Your task to perform on an android device: install app "Google Drive" Image 0: 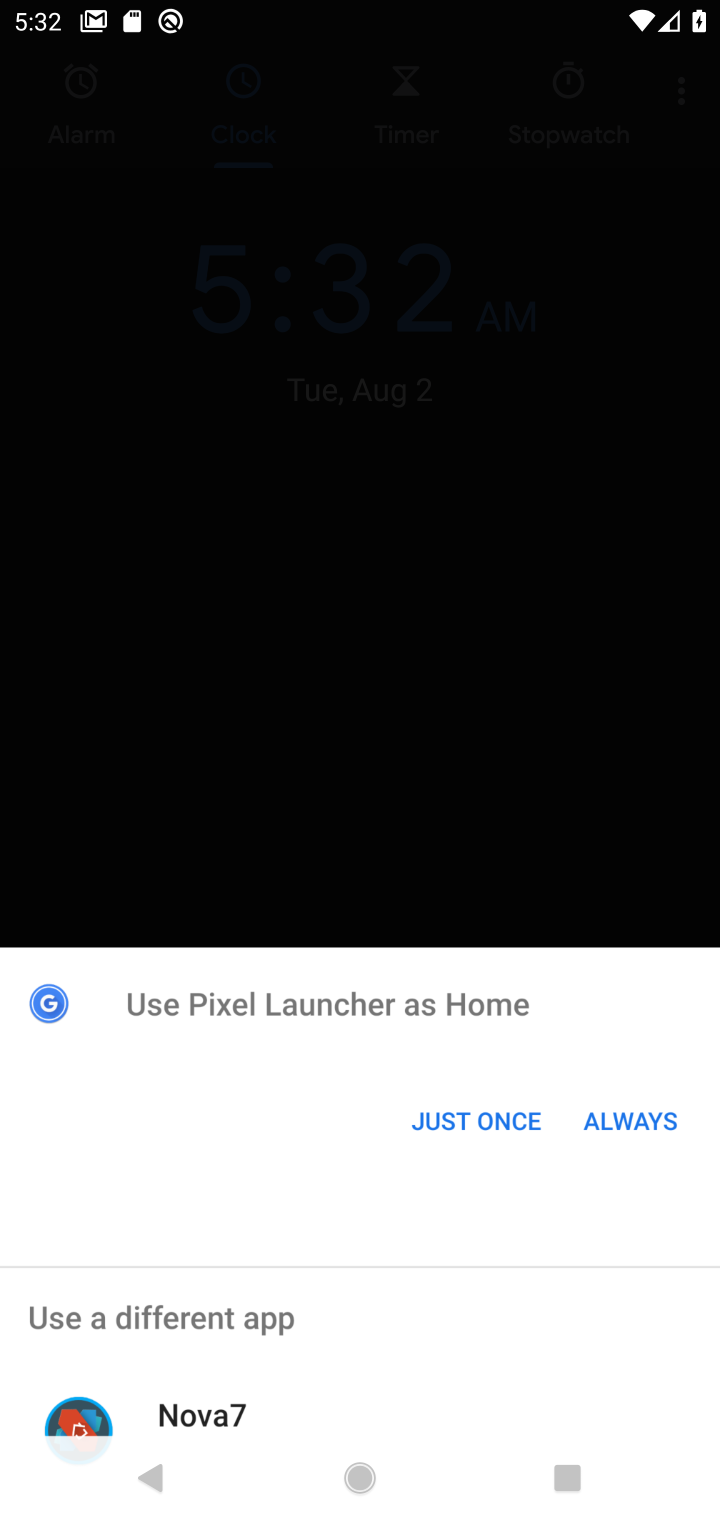
Step 0: click (528, 364)
Your task to perform on an android device: install app "Google Drive" Image 1: 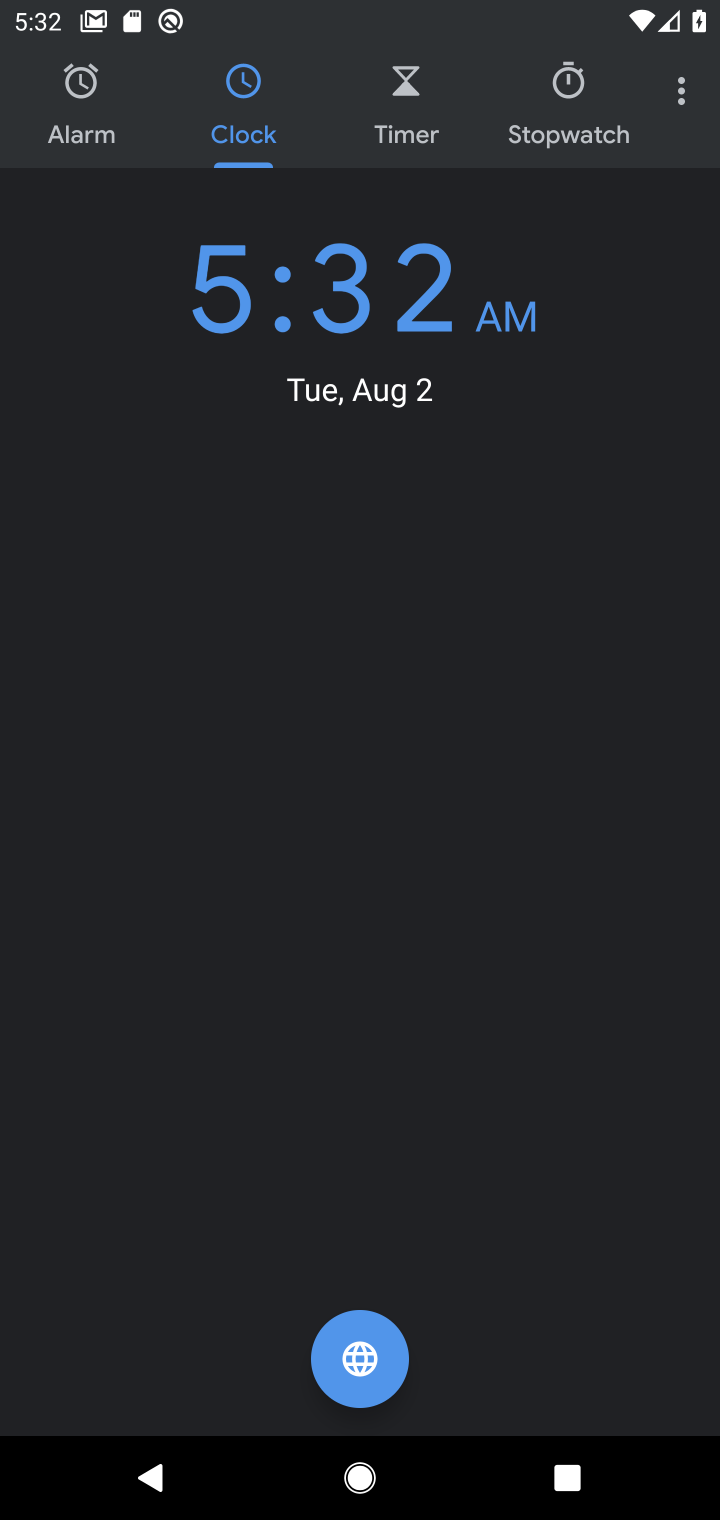
Step 1: drag from (439, 882) to (491, 484)
Your task to perform on an android device: install app "Google Drive" Image 2: 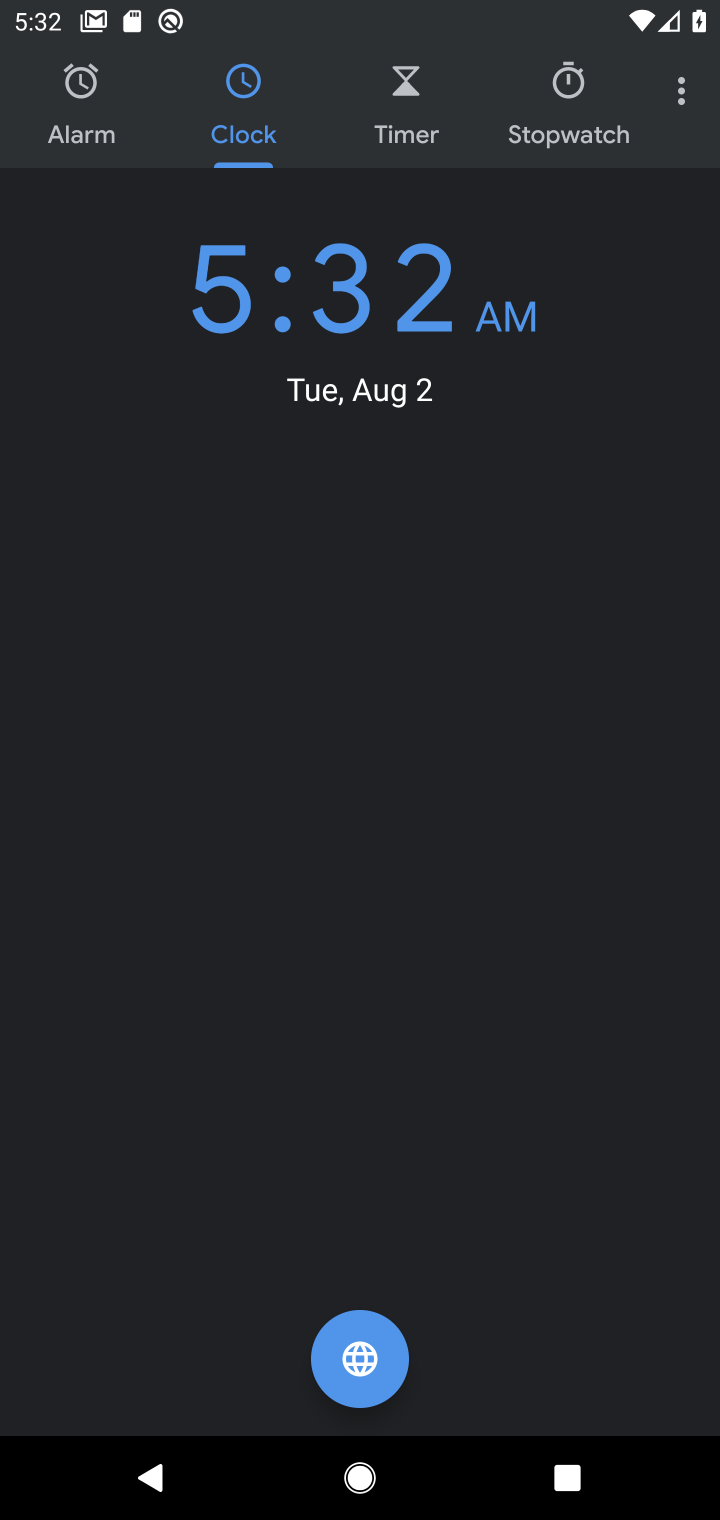
Step 2: press home button
Your task to perform on an android device: install app "Google Drive" Image 3: 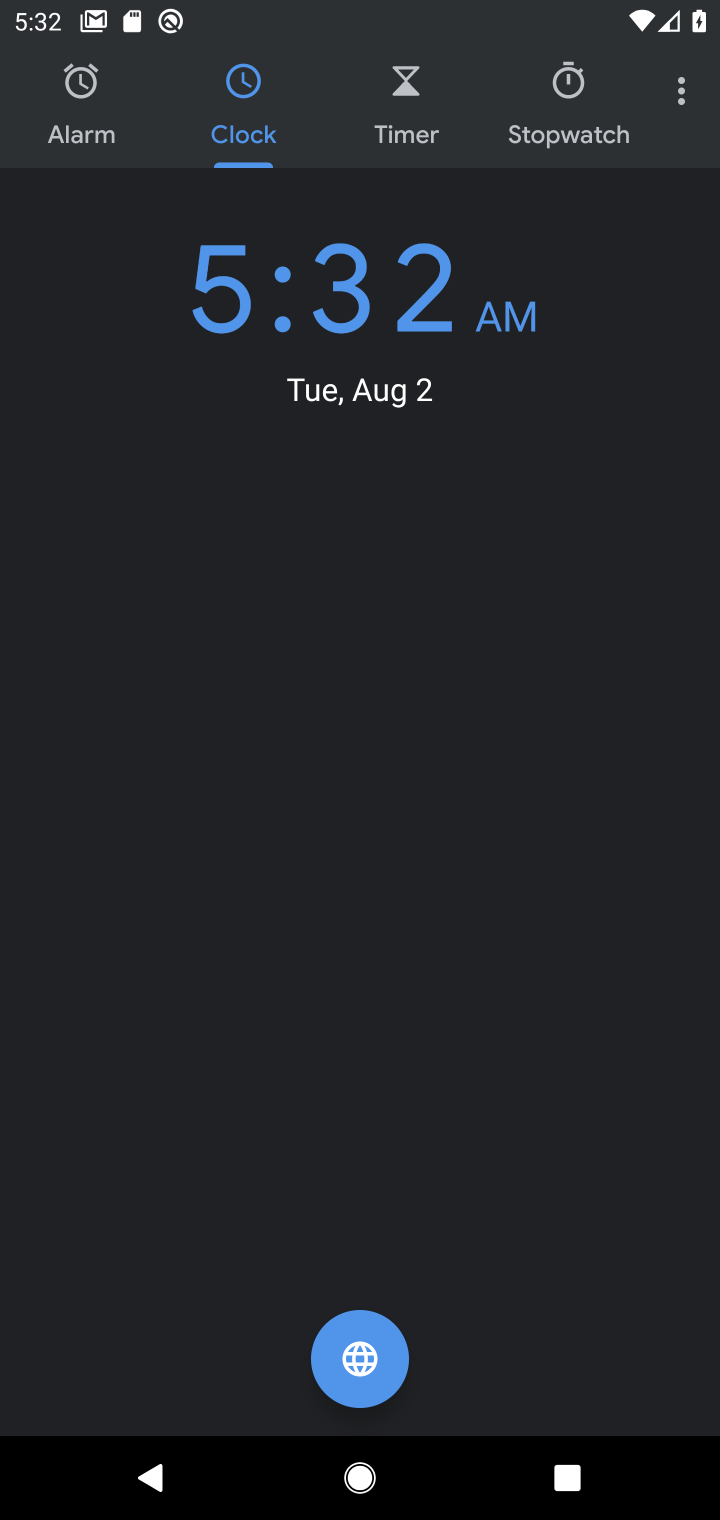
Step 3: press home button
Your task to perform on an android device: install app "Google Drive" Image 4: 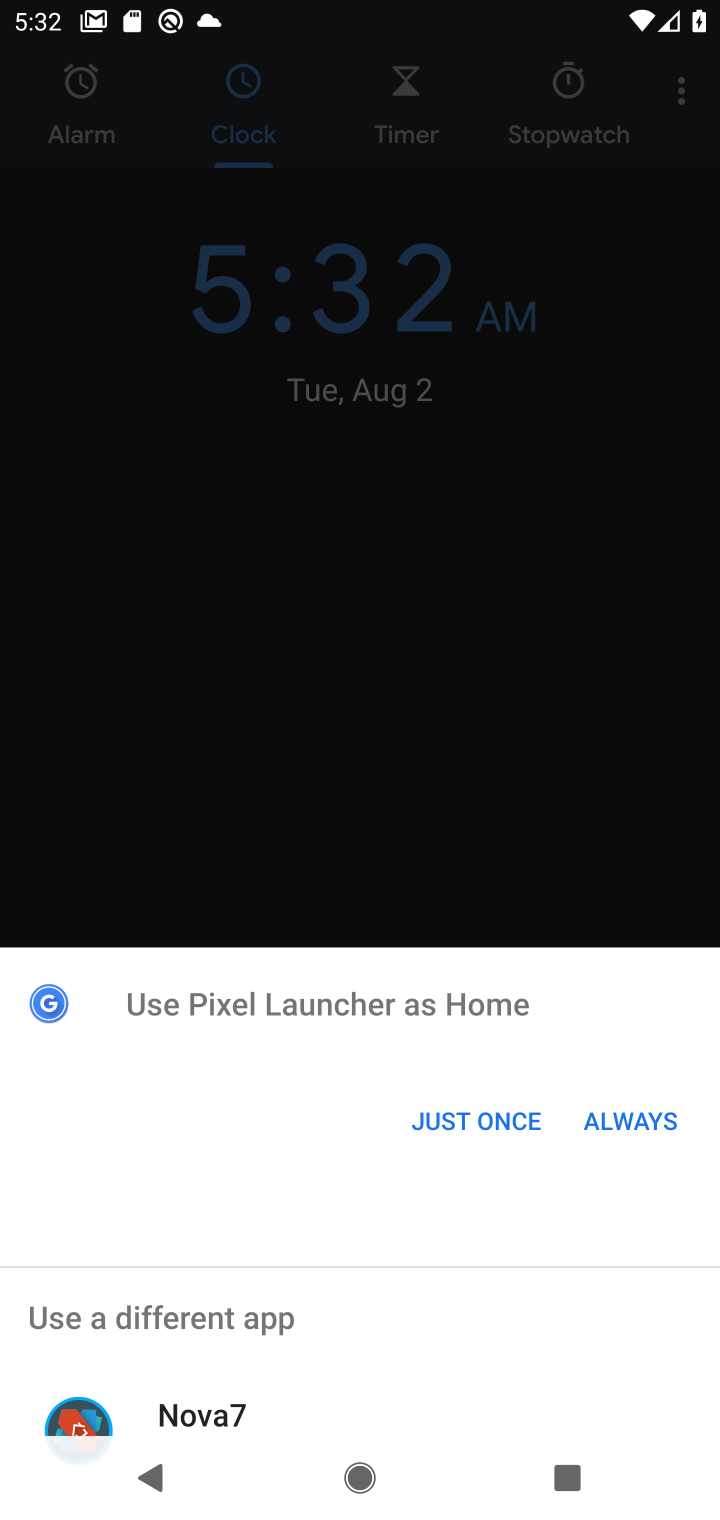
Step 4: press home button
Your task to perform on an android device: install app "Google Drive" Image 5: 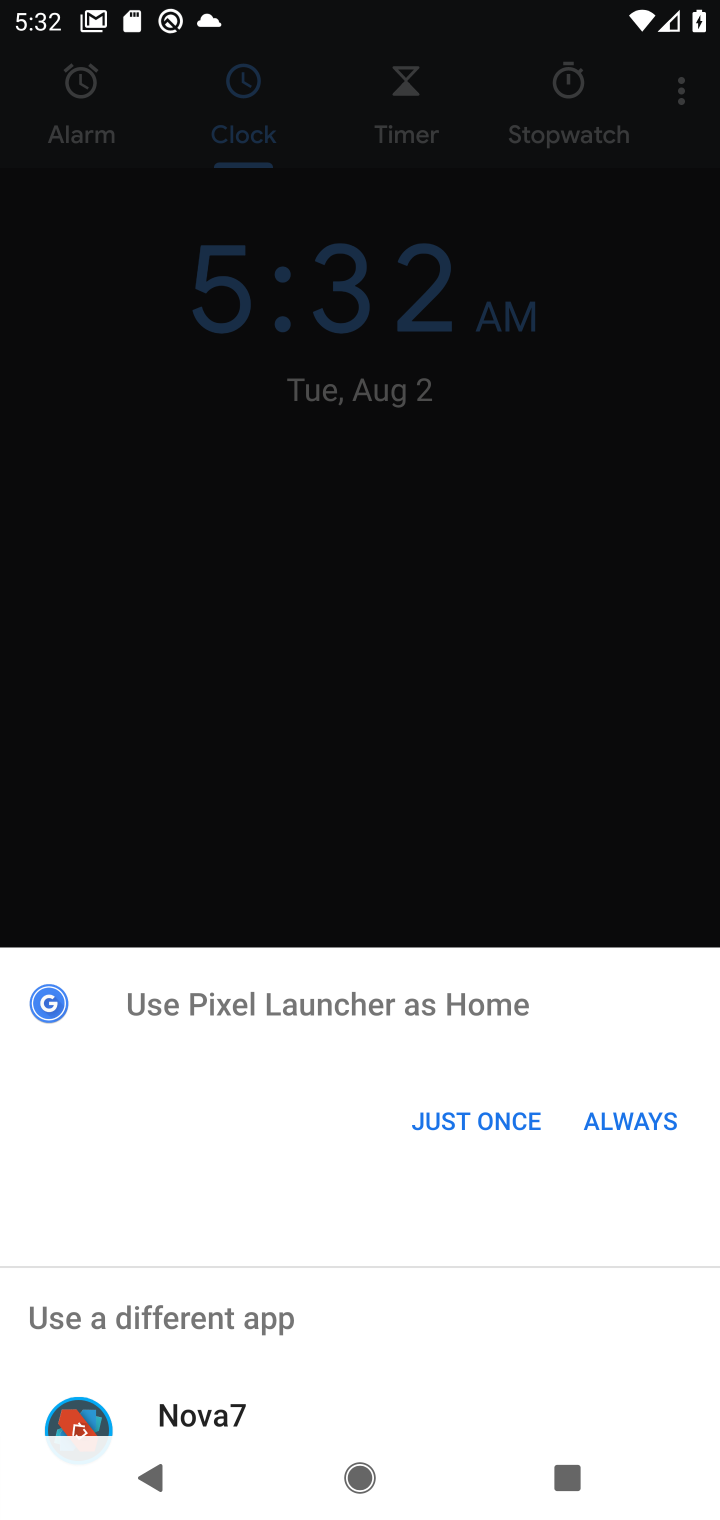
Step 5: click (606, 1119)
Your task to perform on an android device: install app "Google Drive" Image 6: 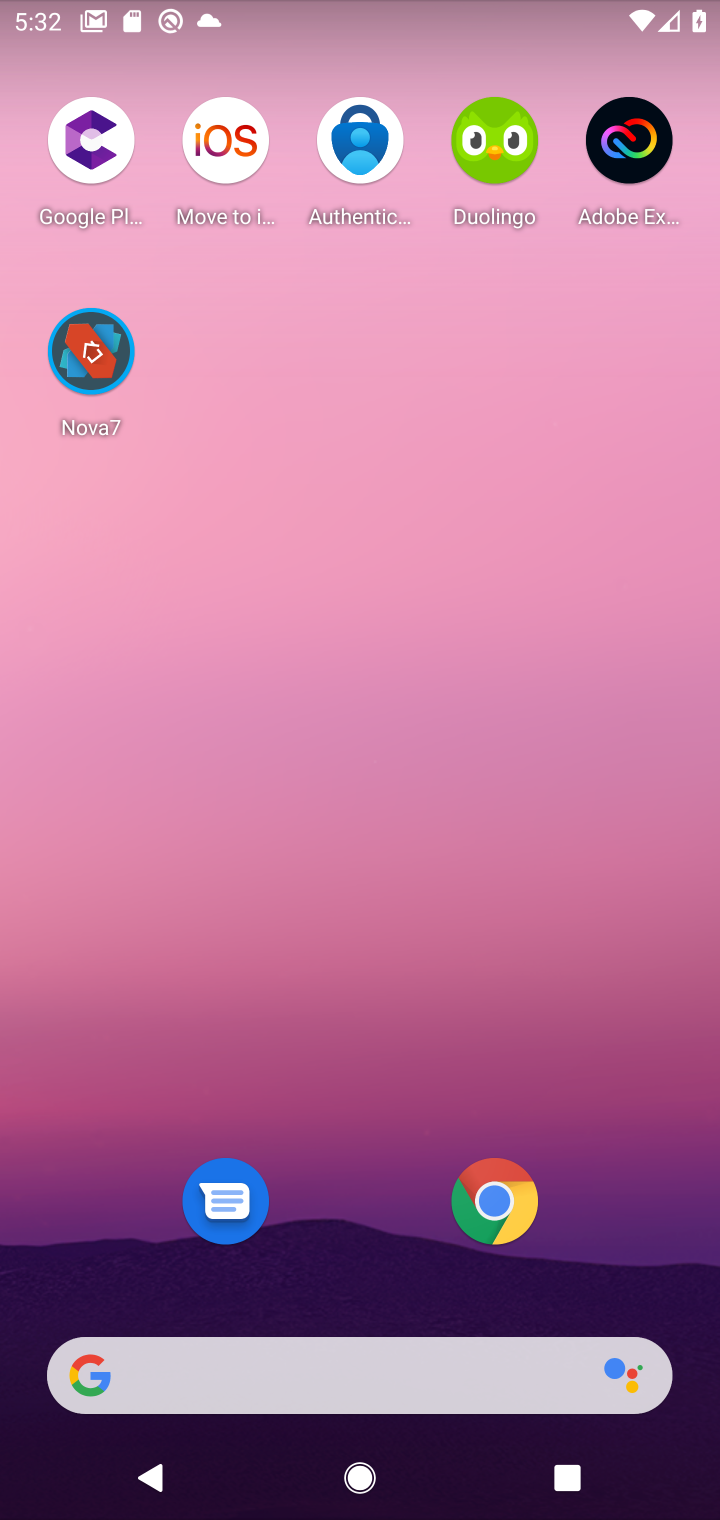
Step 6: drag from (361, 1164) to (496, 251)
Your task to perform on an android device: install app "Google Drive" Image 7: 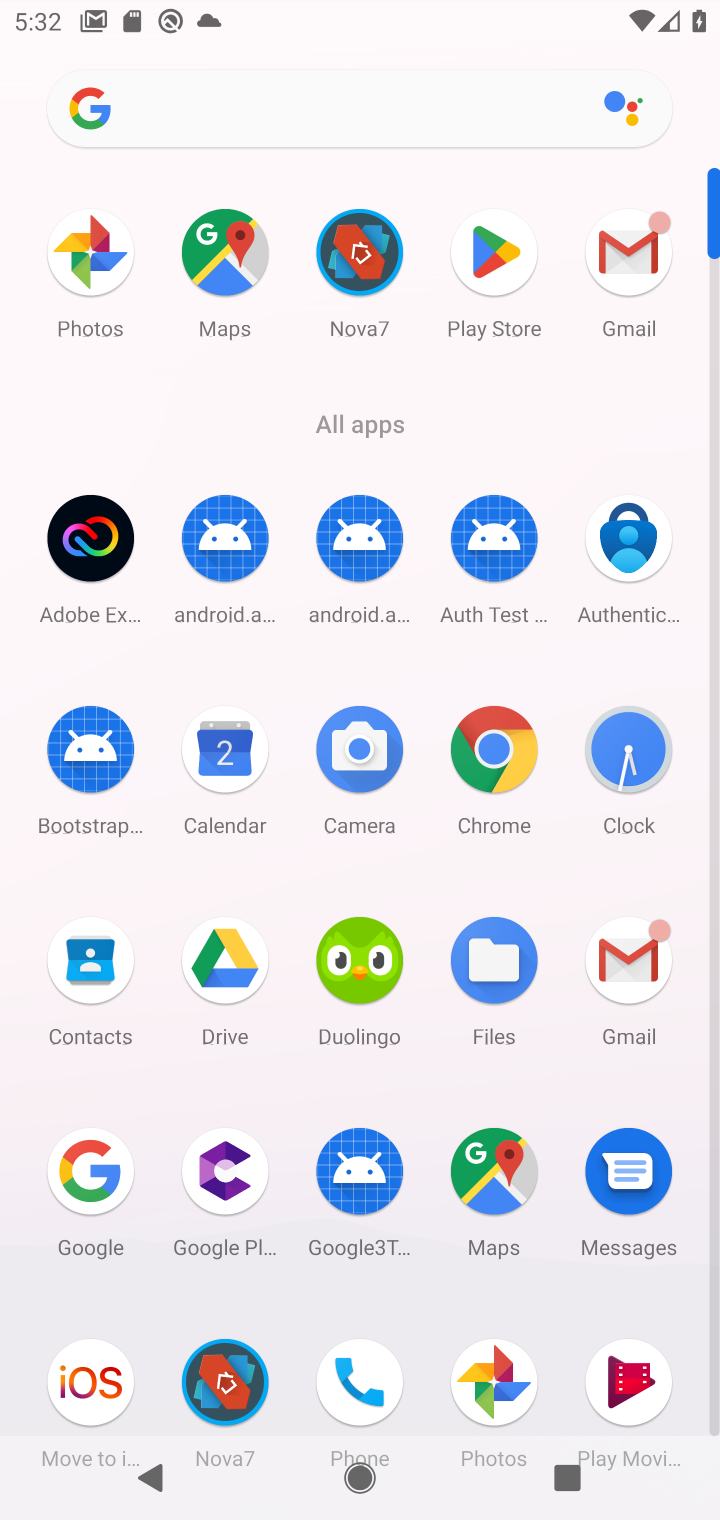
Step 7: click (219, 968)
Your task to perform on an android device: install app "Google Drive" Image 8: 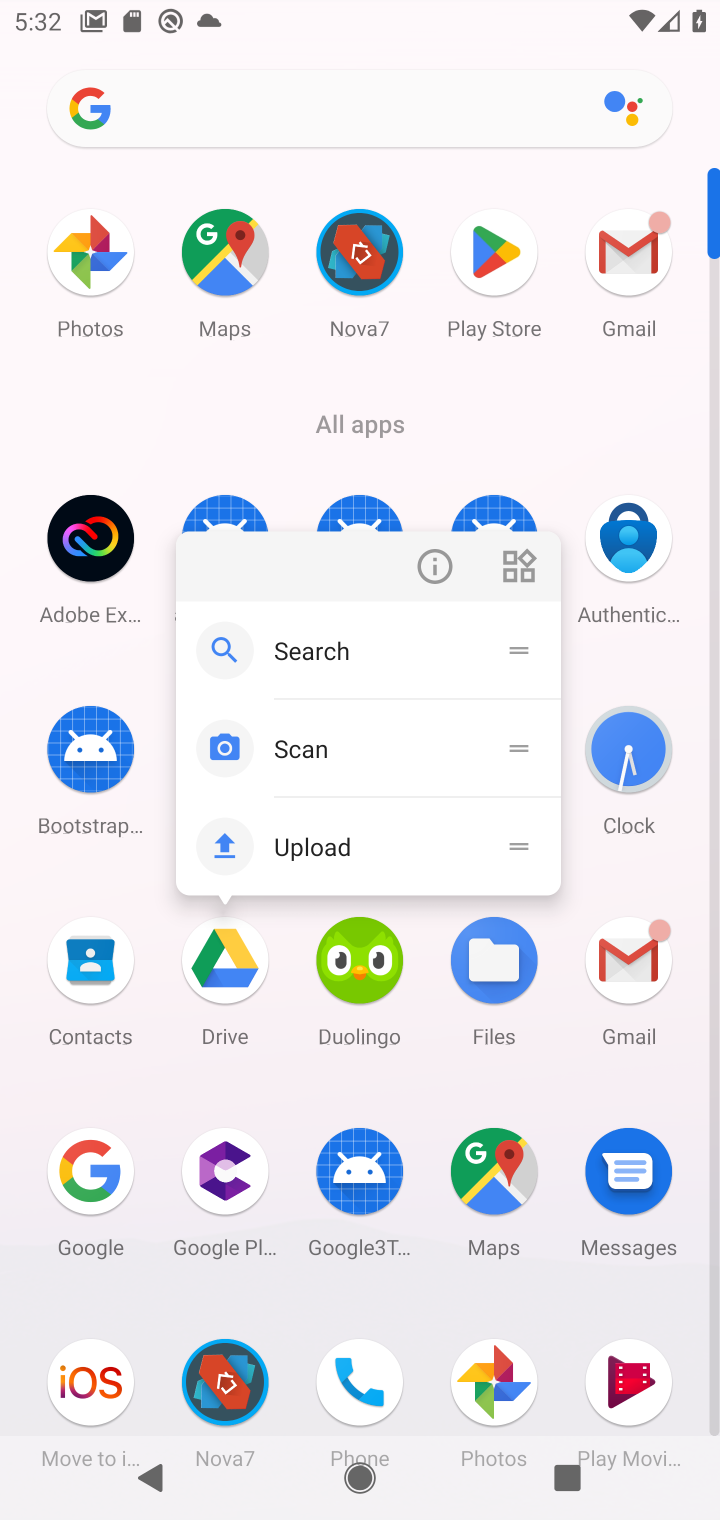
Step 8: task complete